Your task to perform on an android device: Do I have any events this weekend? Image 0: 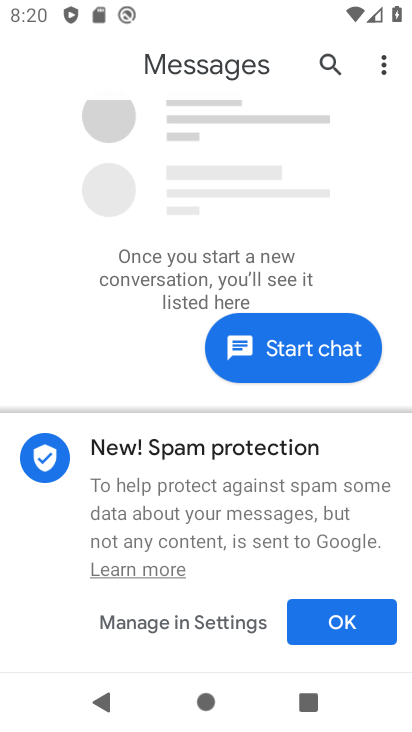
Step 0: press home button
Your task to perform on an android device: Do I have any events this weekend? Image 1: 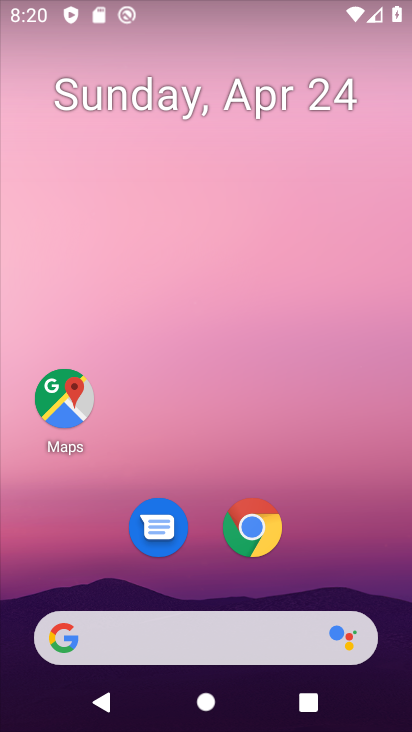
Step 1: drag from (315, 447) to (338, 150)
Your task to perform on an android device: Do I have any events this weekend? Image 2: 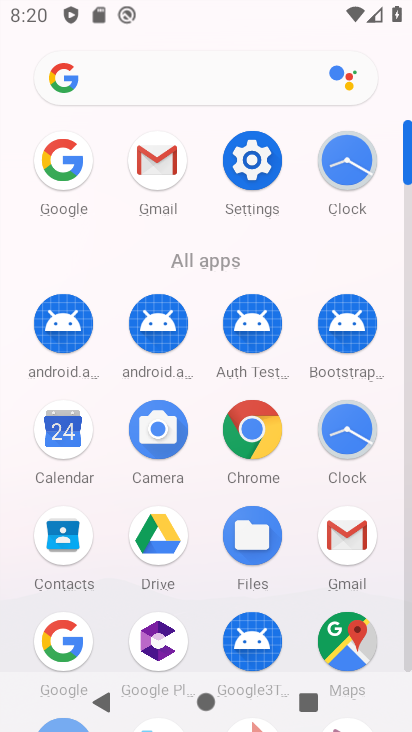
Step 2: click (51, 425)
Your task to perform on an android device: Do I have any events this weekend? Image 3: 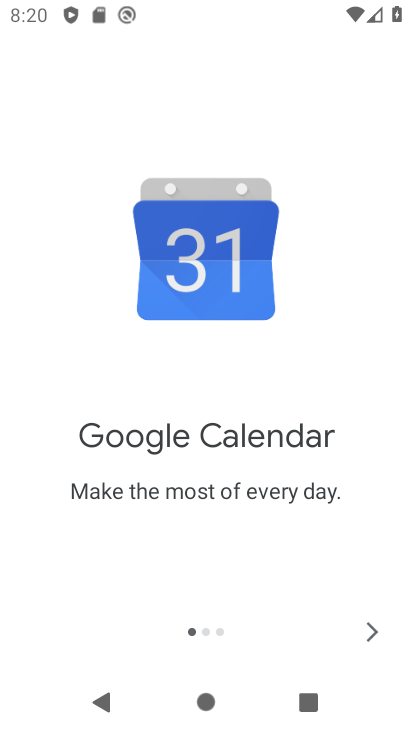
Step 3: click (381, 632)
Your task to perform on an android device: Do I have any events this weekend? Image 4: 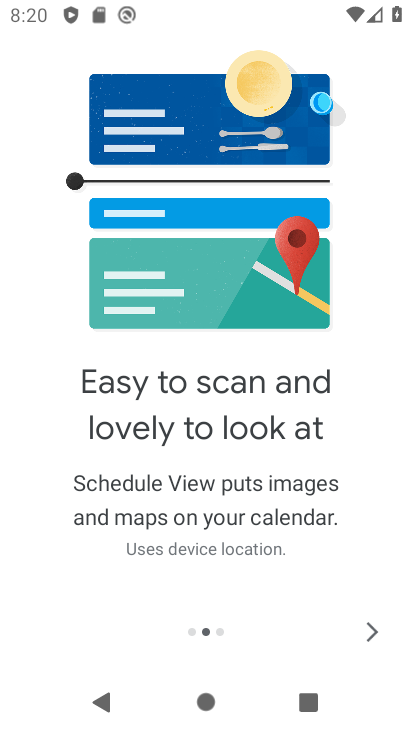
Step 4: click (379, 630)
Your task to perform on an android device: Do I have any events this weekend? Image 5: 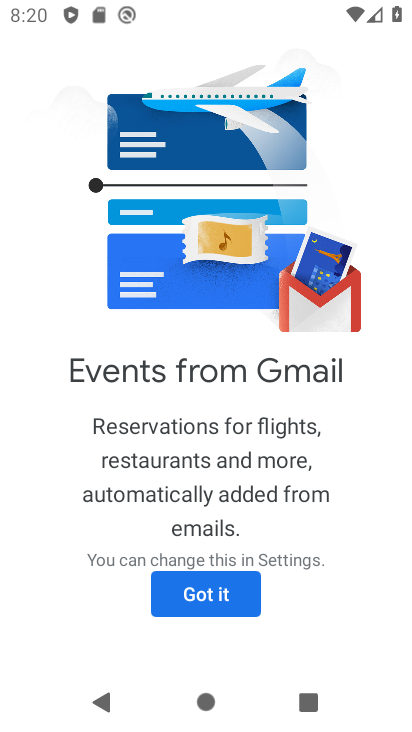
Step 5: click (180, 598)
Your task to perform on an android device: Do I have any events this weekend? Image 6: 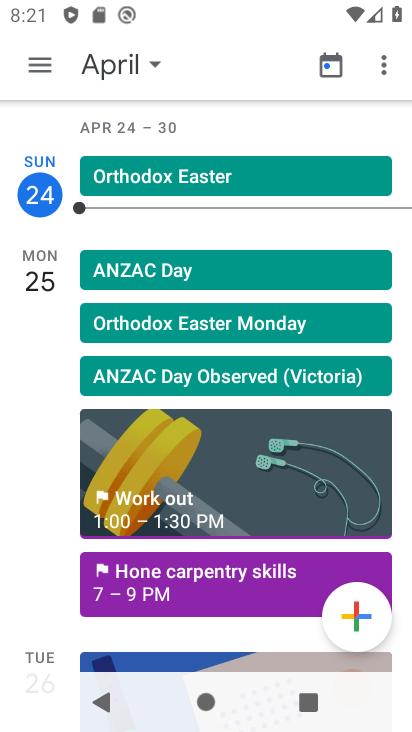
Step 6: click (45, 72)
Your task to perform on an android device: Do I have any events this weekend? Image 7: 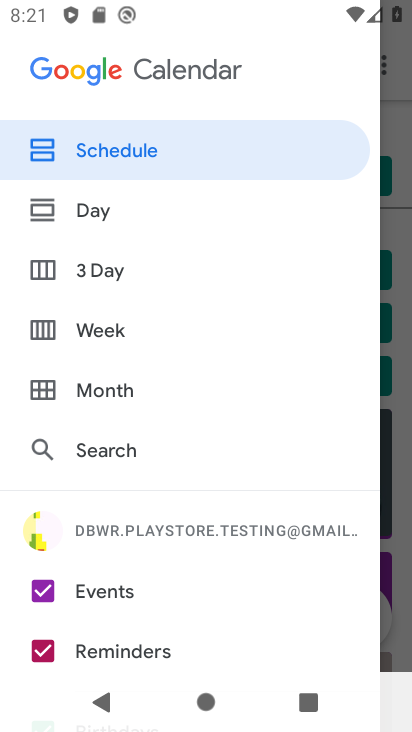
Step 7: drag from (174, 594) to (178, 181)
Your task to perform on an android device: Do I have any events this weekend? Image 8: 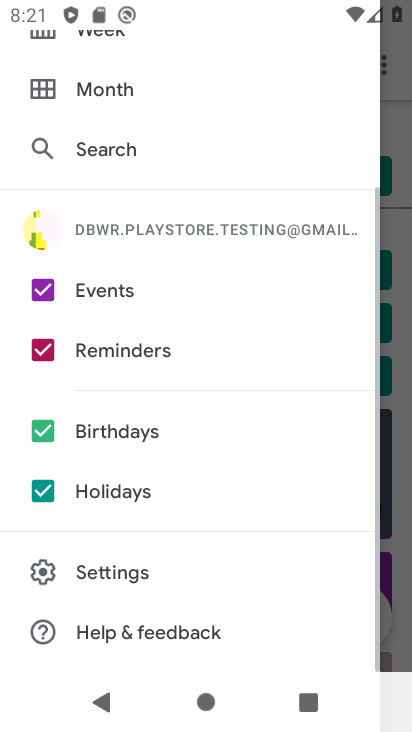
Step 8: click (44, 352)
Your task to perform on an android device: Do I have any events this weekend? Image 9: 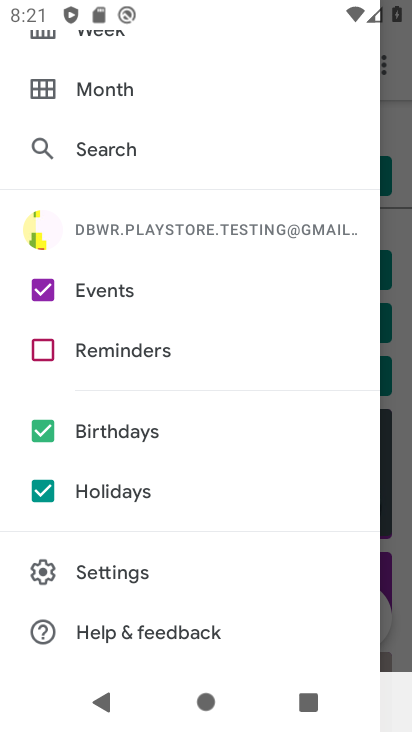
Step 9: click (41, 430)
Your task to perform on an android device: Do I have any events this weekend? Image 10: 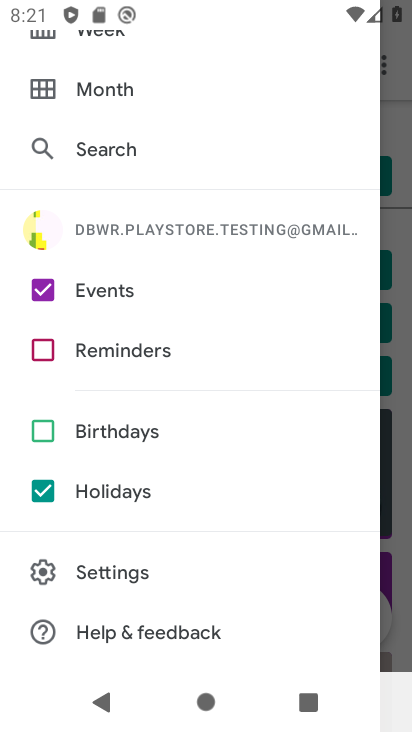
Step 10: click (44, 496)
Your task to perform on an android device: Do I have any events this weekend? Image 11: 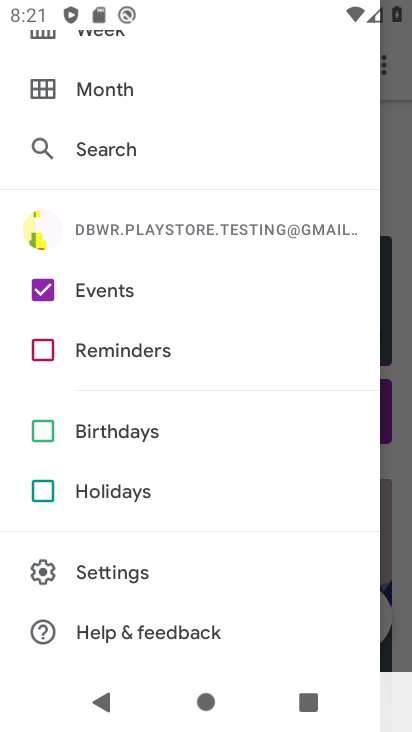
Step 11: drag from (256, 352) to (211, 628)
Your task to perform on an android device: Do I have any events this weekend? Image 12: 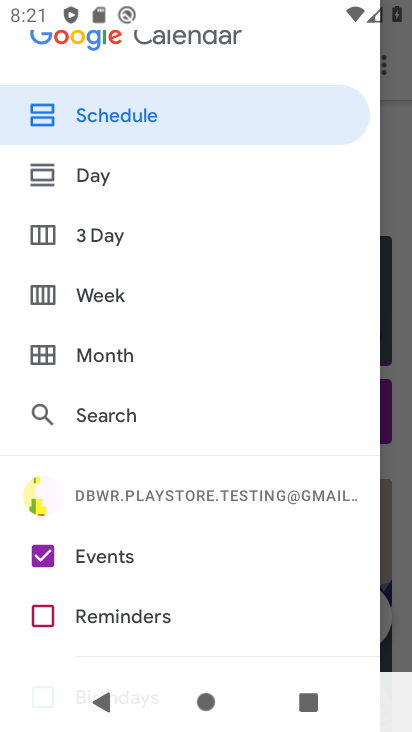
Step 12: click (132, 231)
Your task to perform on an android device: Do I have any events this weekend? Image 13: 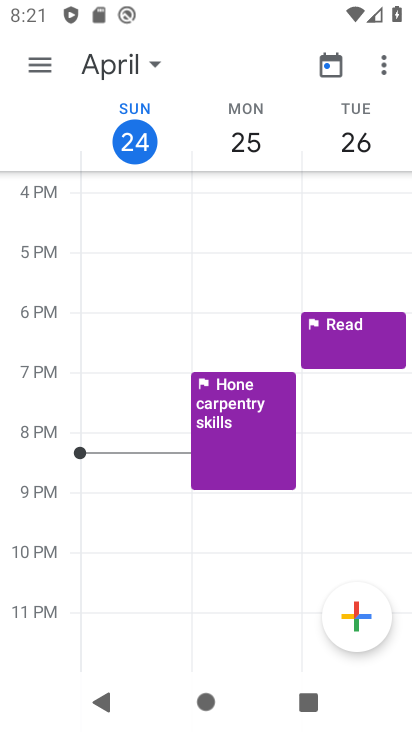
Step 13: click (160, 51)
Your task to perform on an android device: Do I have any events this weekend? Image 14: 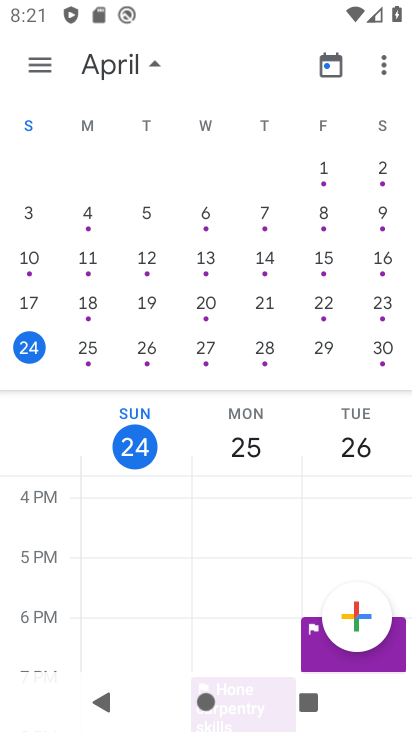
Step 14: click (321, 350)
Your task to perform on an android device: Do I have any events this weekend? Image 15: 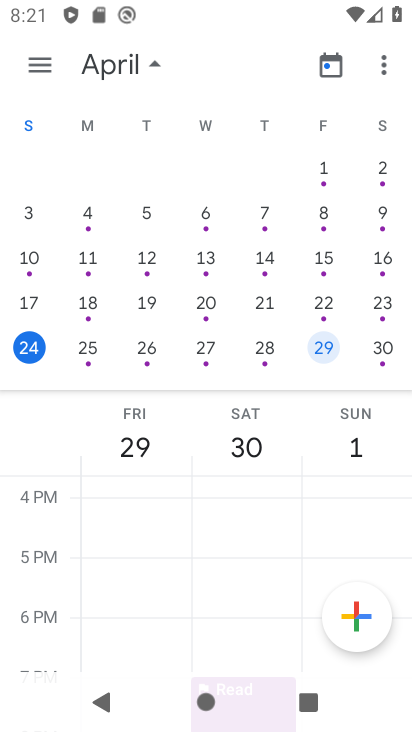
Step 15: task complete